Your task to perform on an android device: Check the news Image 0: 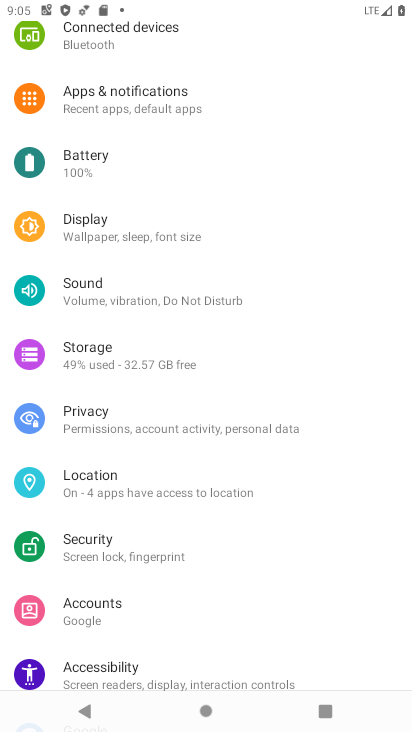
Step 0: press home button
Your task to perform on an android device: Check the news Image 1: 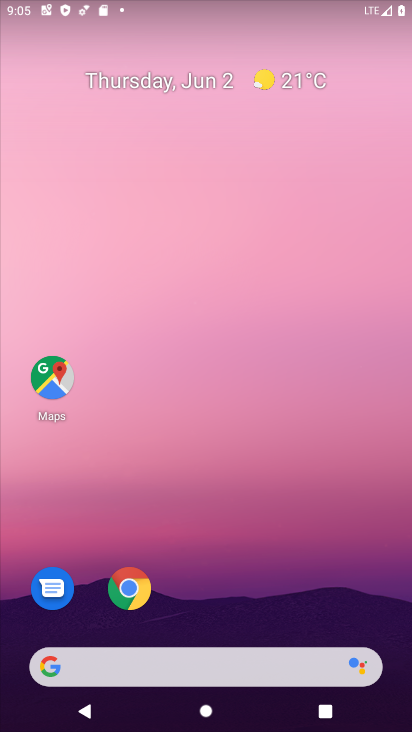
Step 1: drag from (253, 616) to (225, 248)
Your task to perform on an android device: Check the news Image 2: 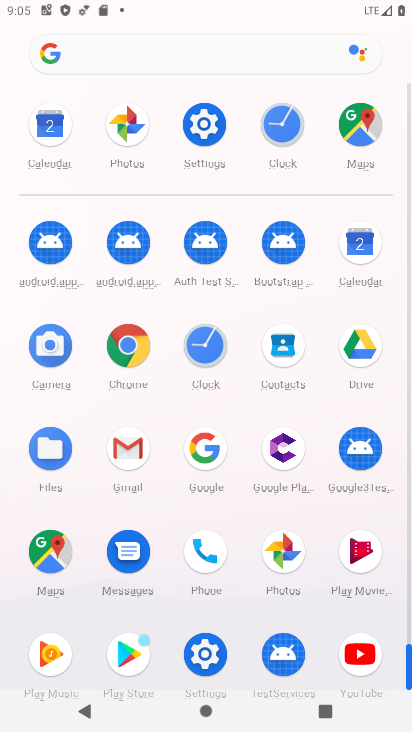
Step 2: click (212, 468)
Your task to perform on an android device: Check the news Image 3: 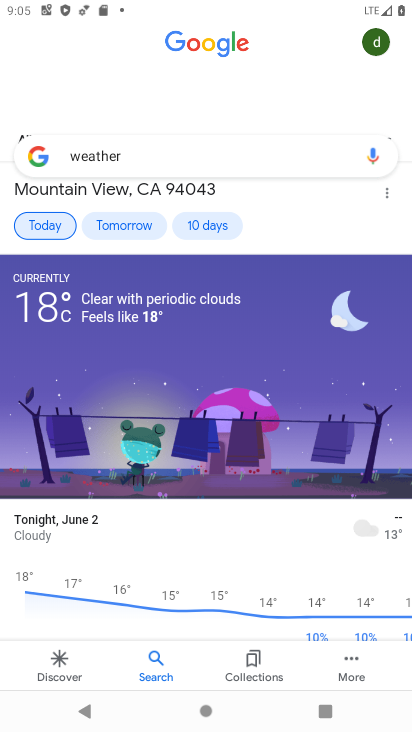
Step 3: click (296, 160)
Your task to perform on an android device: Check the news Image 4: 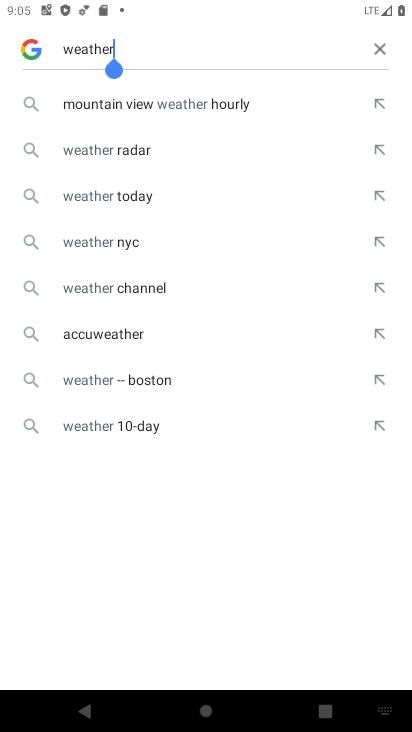
Step 4: click (383, 49)
Your task to perform on an android device: Check the news Image 5: 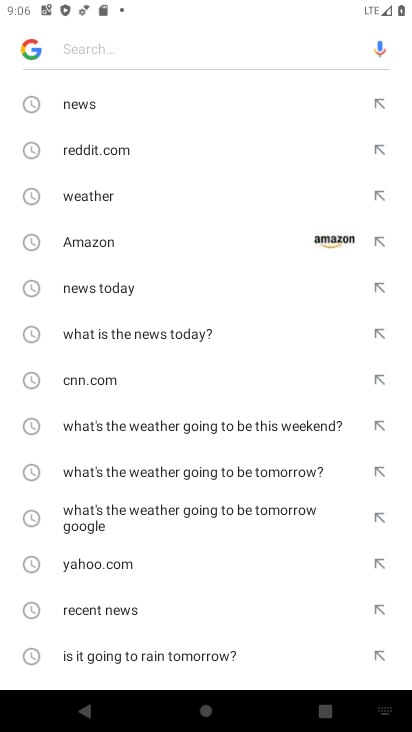
Step 5: click (218, 91)
Your task to perform on an android device: Check the news Image 6: 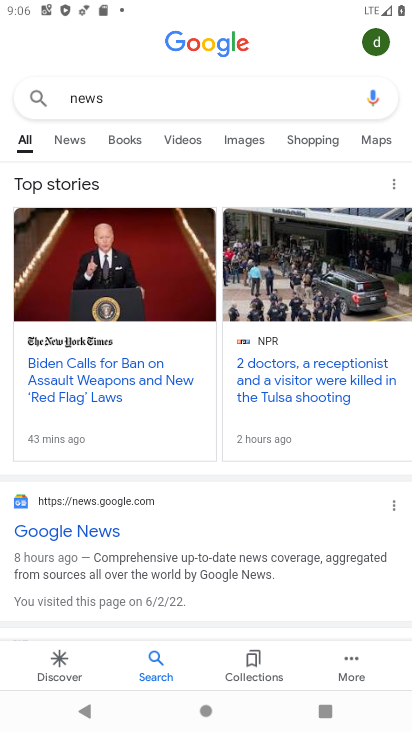
Step 6: task complete